Your task to perform on an android device: install app "Google Pay: Save, Pay, Manage" Image 0: 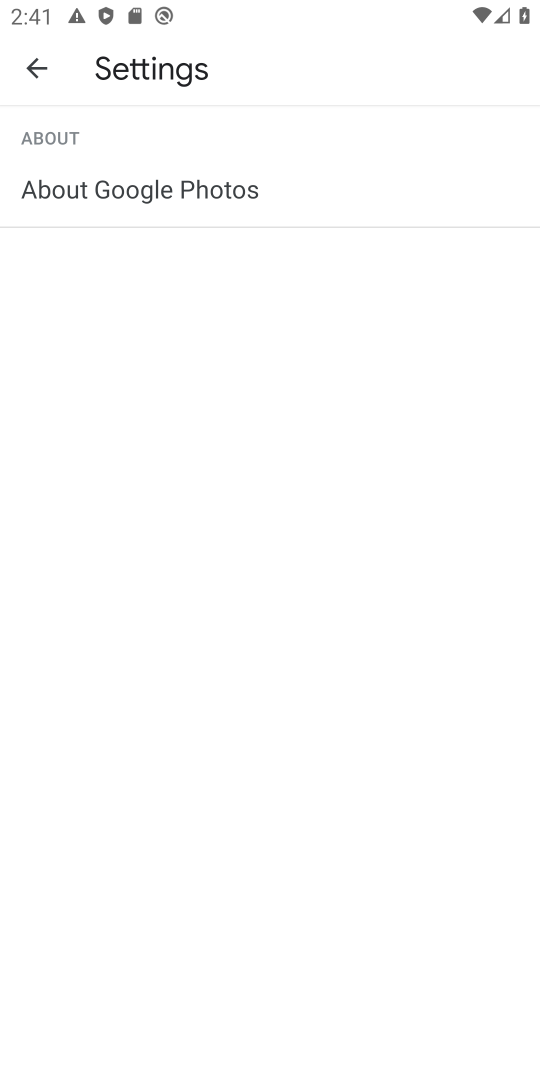
Step 0: press home button
Your task to perform on an android device: install app "Google Pay: Save, Pay, Manage" Image 1: 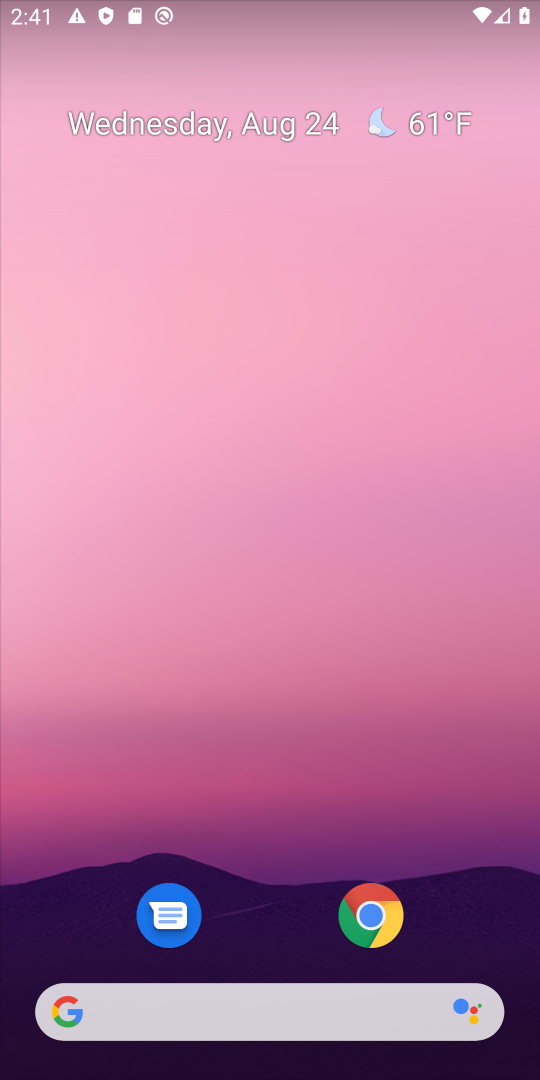
Step 1: drag from (292, 819) to (359, 294)
Your task to perform on an android device: install app "Google Pay: Save, Pay, Manage" Image 2: 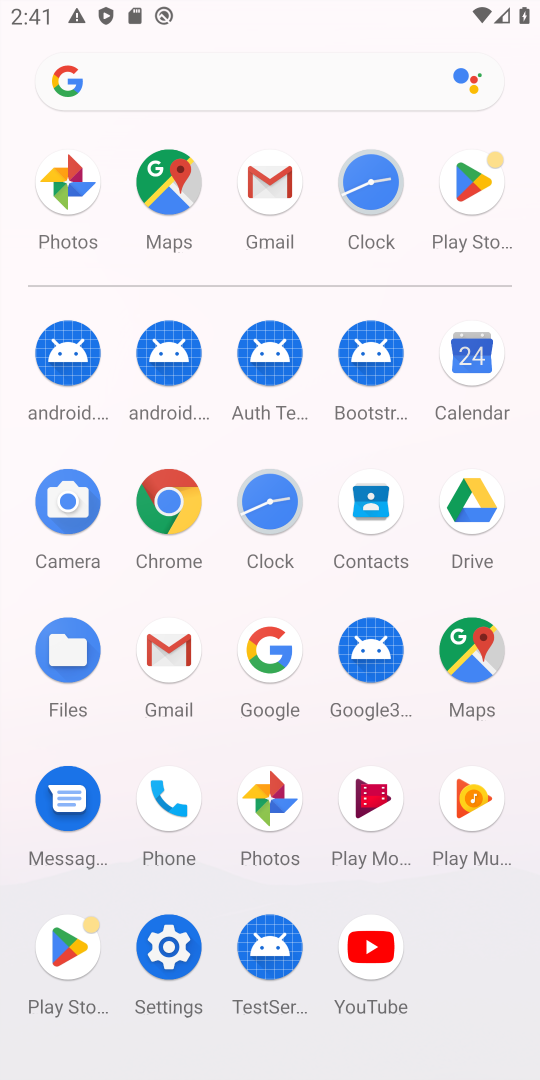
Step 2: click (470, 190)
Your task to perform on an android device: install app "Google Pay: Save, Pay, Manage" Image 3: 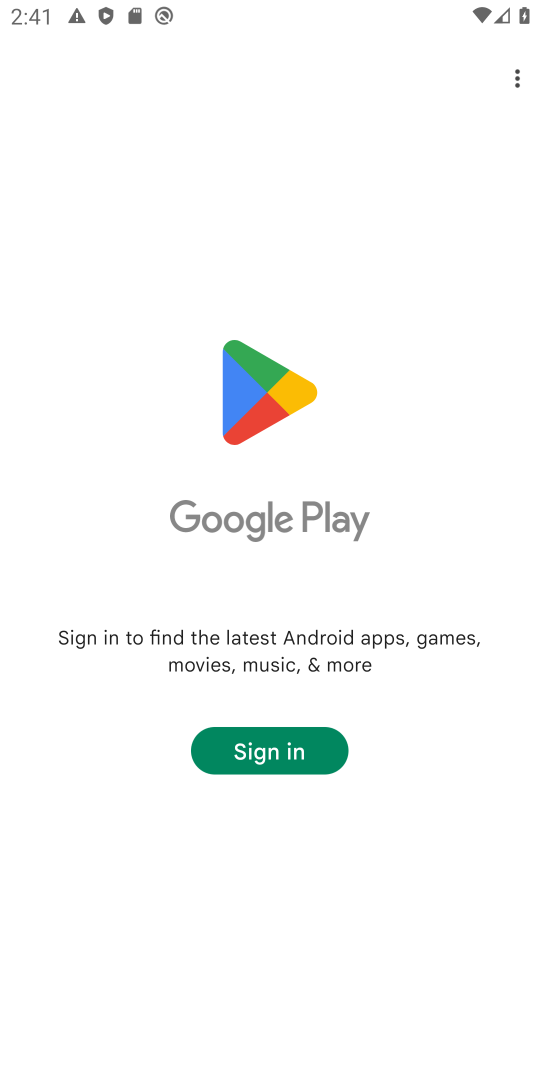
Step 3: task complete